Your task to perform on an android device: turn off smart reply in the gmail app Image 0: 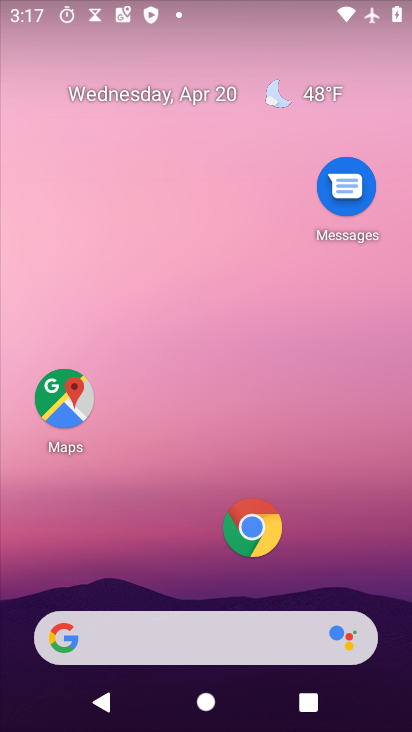
Step 0: drag from (188, 570) to (315, 221)
Your task to perform on an android device: turn off smart reply in the gmail app Image 1: 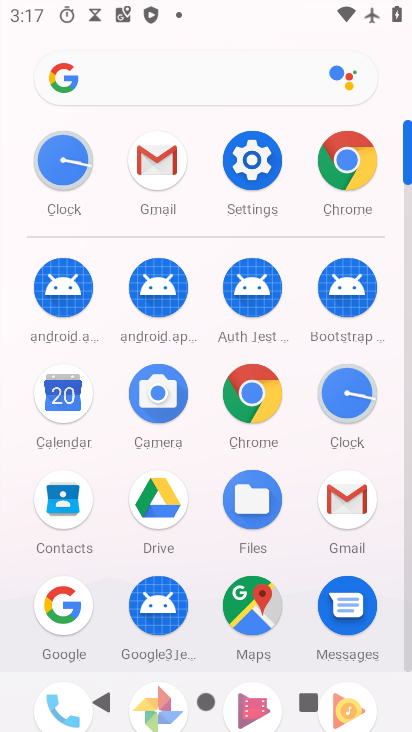
Step 1: click (168, 172)
Your task to perform on an android device: turn off smart reply in the gmail app Image 2: 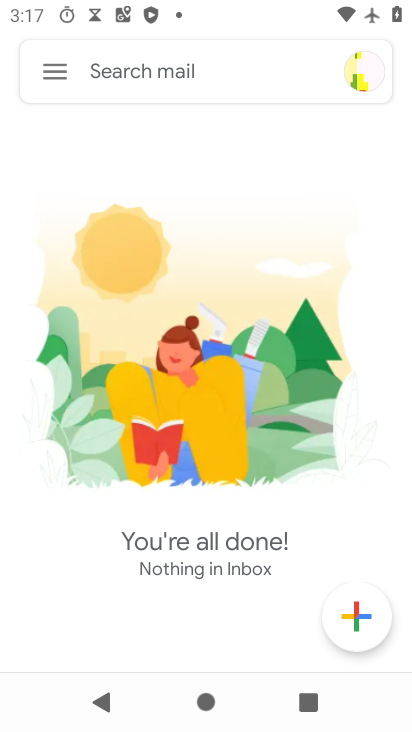
Step 2: click (55, 76)
Your task to perform on an android device: turn off smart reply in the gmail app Image 3: 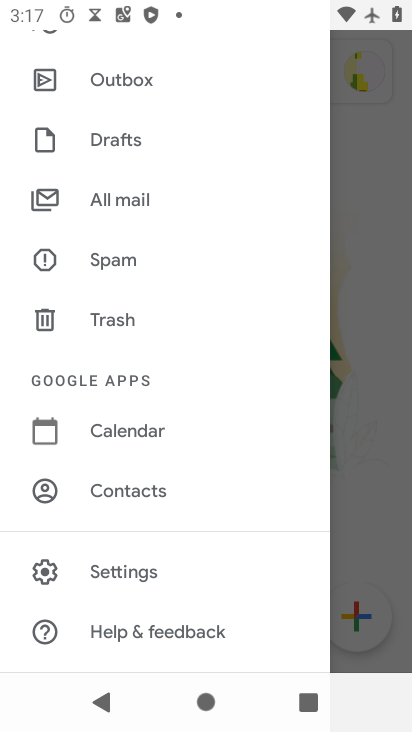
Step 3: click (116, 566)
Your task to perform on an android device: turn off smart reply in the gmail app Image 4: 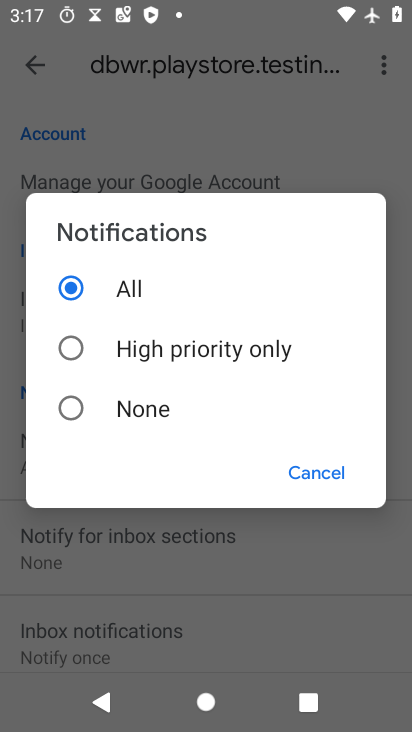
Step 4: click (342, 474)
Your task to perform on an android device: turn off smart reply in the gmail app Image 5: 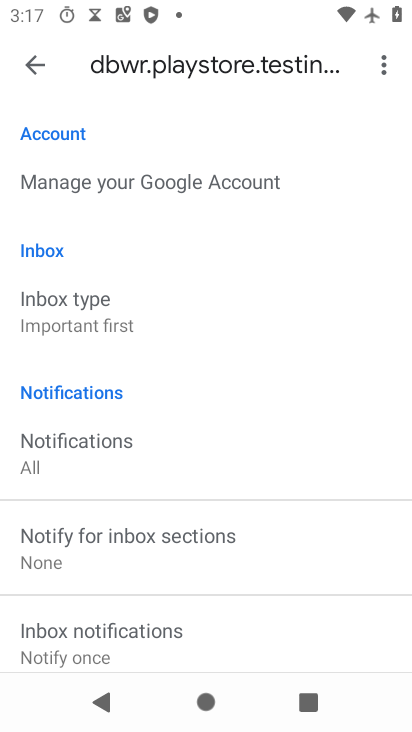
Step 5: drag from (198, 596) to (354, 105)
Your task to perform on an android device: turn off smart reply in the gmail app Image 6: 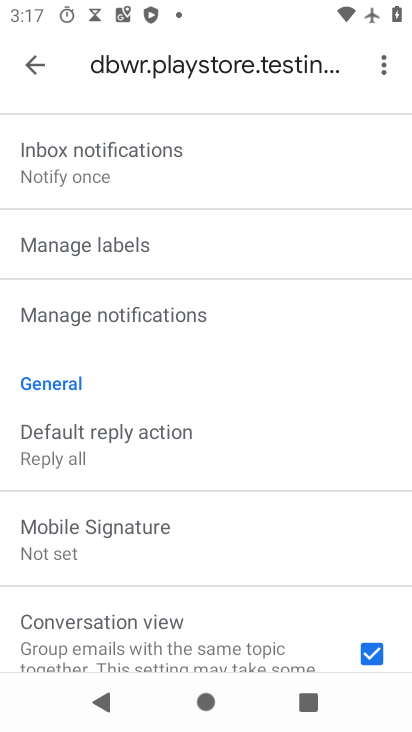
Step 6: drag from (179, 531) to (350, 165)
Your task to perform on an android device: turn off smart reply in the gmail app Image 7: 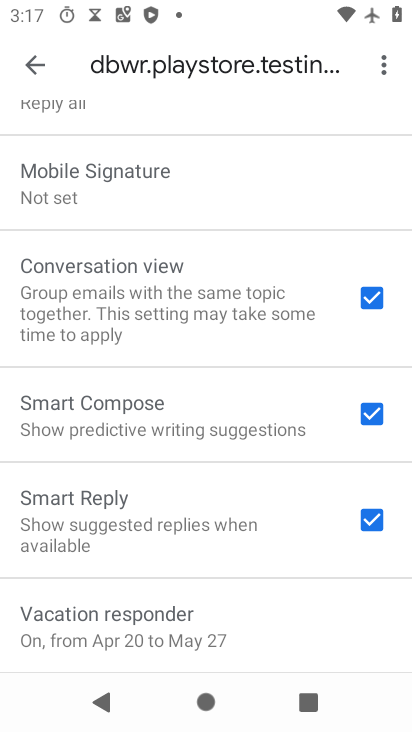
Step 7: click (373, 518)
Your task to perform on an android device: turn off smart reply in the gmail app Image 8: 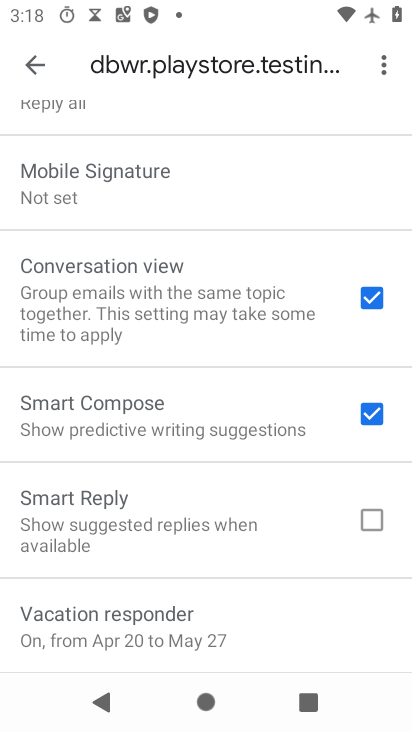
Step 8: task complete